Your task to perform on an android device: snooze an email in the gmail app Image 0: 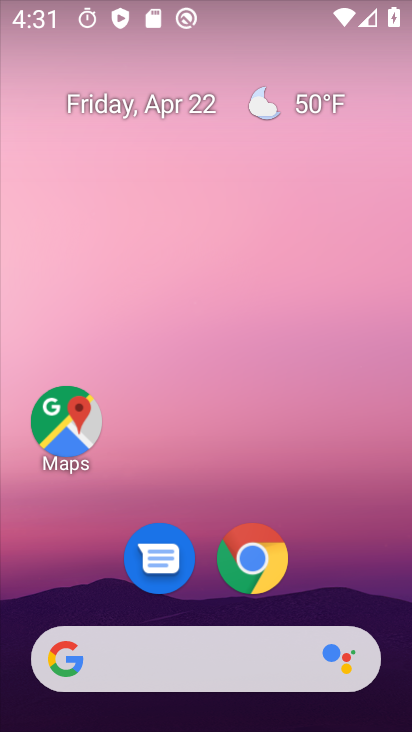
Step 0: click (263, 581)
Your task to perform on an android device: snooze an email in the gmail app Image 1: 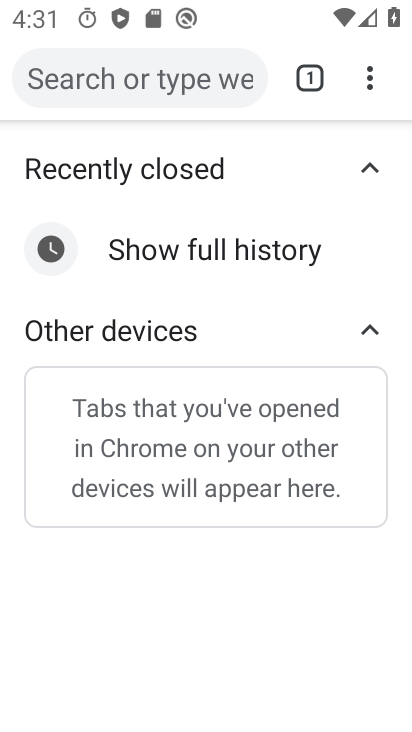
Step 1: click (367, 76)
Your task to perform on an android device: snooze an email in the gmail app Image 2: 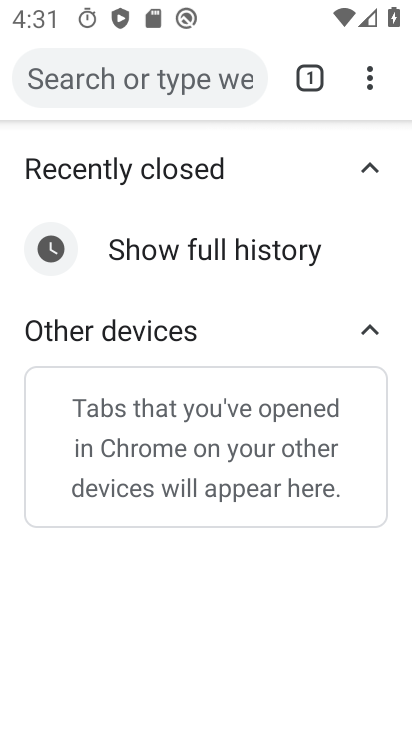
Step 2: click (313, 81)
Your task to perform on an android device: snooze an email in the gmail app Image 3: 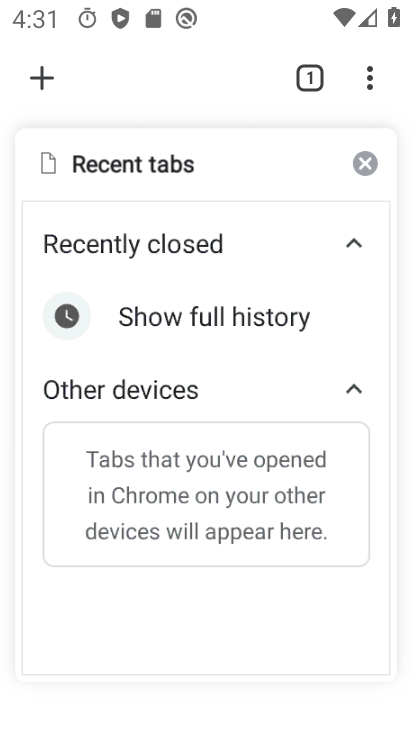
Step 3: click (43, 69)
Your task to perform on an android device: snooze an email in the gmail app Image 4: 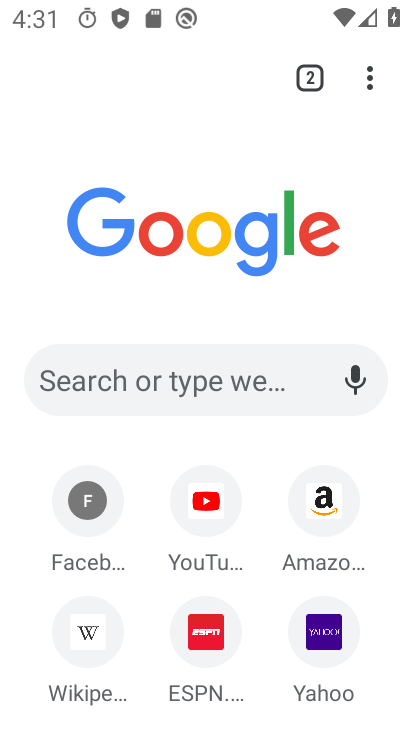
Step 4: click (80, 649)
Your task to perform on an android device: snooze an email in the gmail app Image 5: 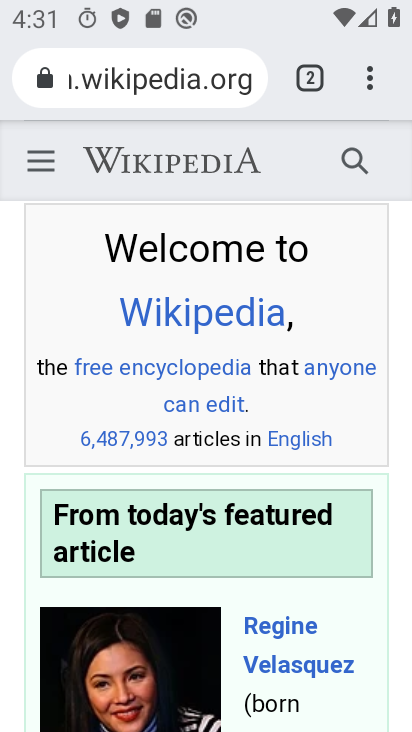
Step 5: press home button
Your task to perform on an android device: snooze an email in the gmail app Image 6: 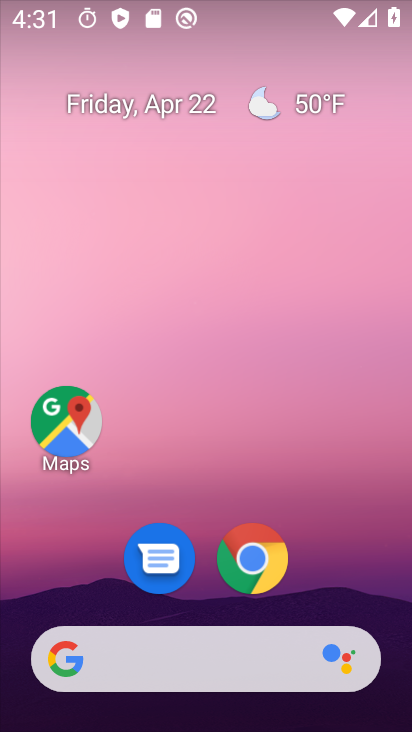
Step 6: drag from (325, 570) to (270, 210)
Your task to perform on an android device: snooze an email in the gmail app Image 7: 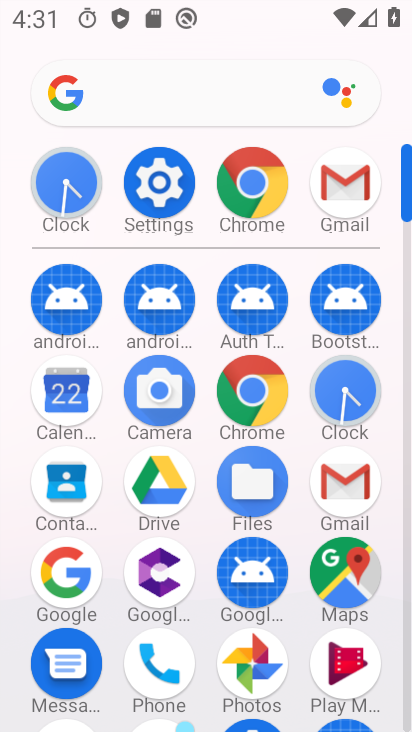
Step 7: click (325, 216)
Your task to perform on an android device: snooze an email in the gmail app Image 8: 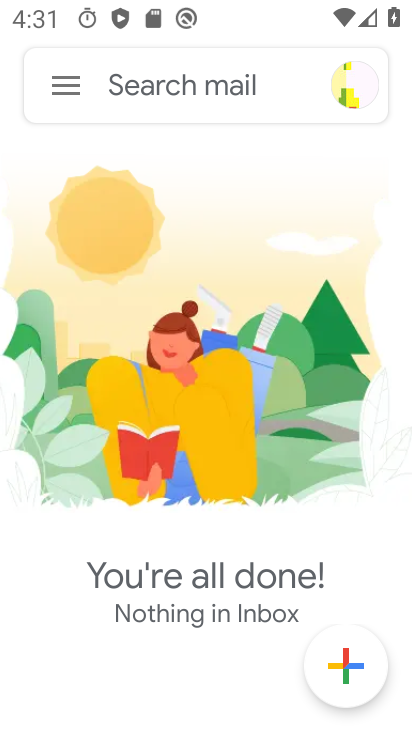
Step 8: click (62, 88)
Your task to perform on an android device: snooze an email in the gmail app Image 9: 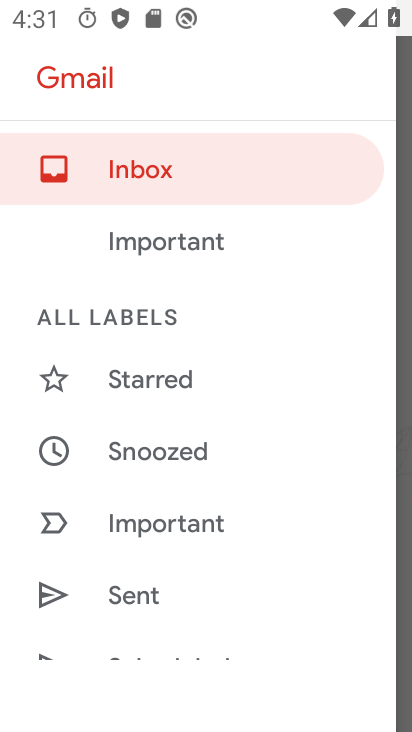
Step 9: drag from (162, 573) to (205, 359)
Your task to perform on an android device: snooze an email in the gmail app Image 10: 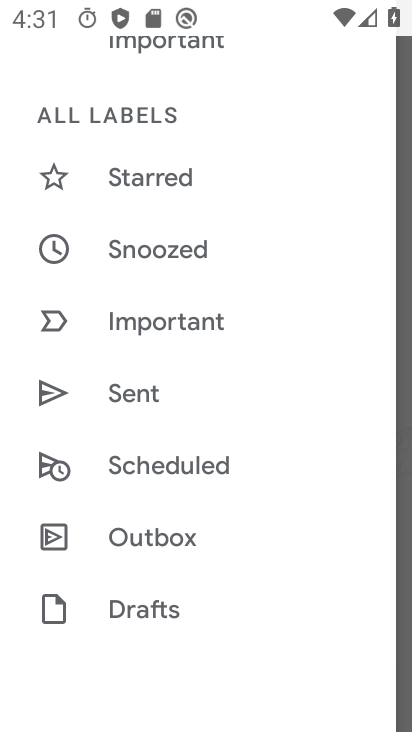
Step 10: drag from (195, 562) to (244, 343)
Your task to perform on an android device: snooze an email in the gmail app Image 11: 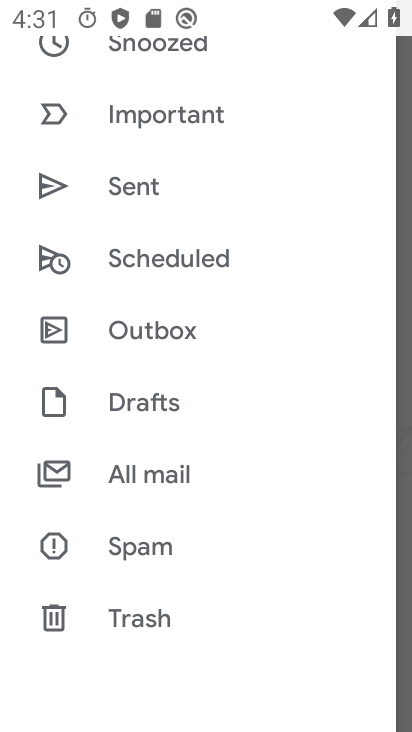
Step 11: click (158, 489)
Your task to perform on an android device: snooze an email in the gmail app Image 12: 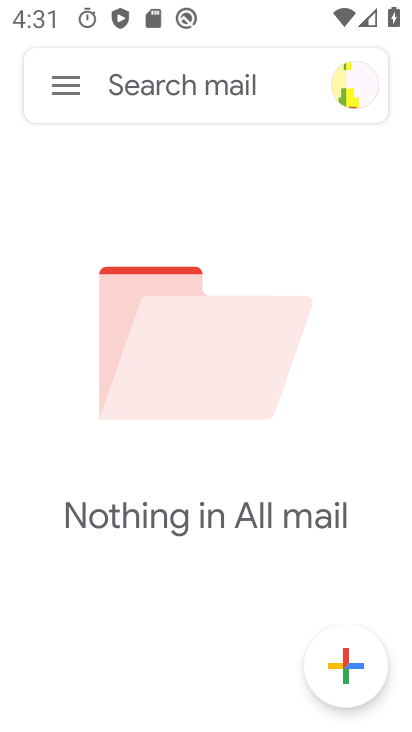
Step 12: task complete